Your task to perform on an android device: Show me the alarms in the clock app Image 0: 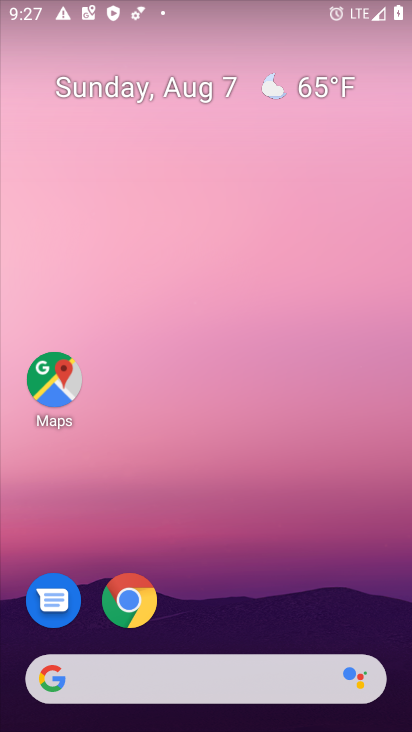
Step 0: drag from (198, 590) to (157, 212)
Your task to perform on an android device: Show me the alarms in the clock app Image 1: 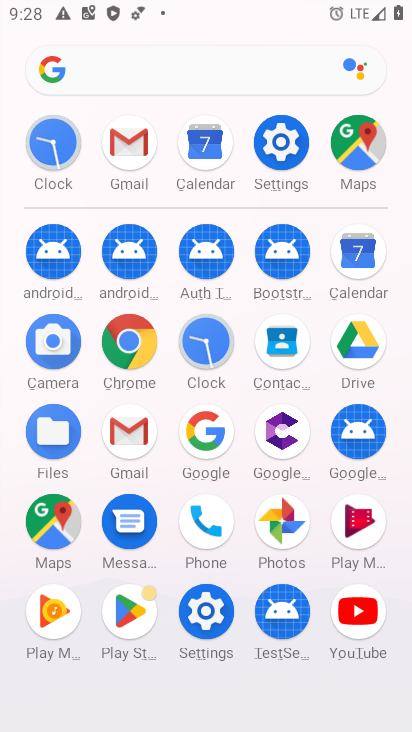
Step 1: click (214, 349)
Your task to perform on an android device: Show me the alarms in the clock app Image 2: 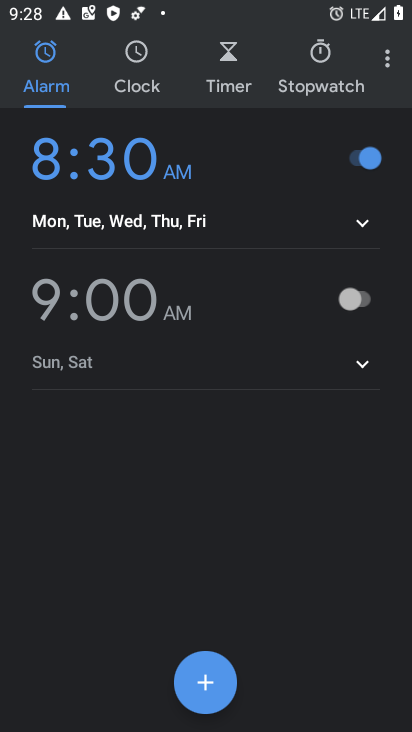
Step 2: task complete